Your task to perform on an android device: open app "Gboard" Image 0: 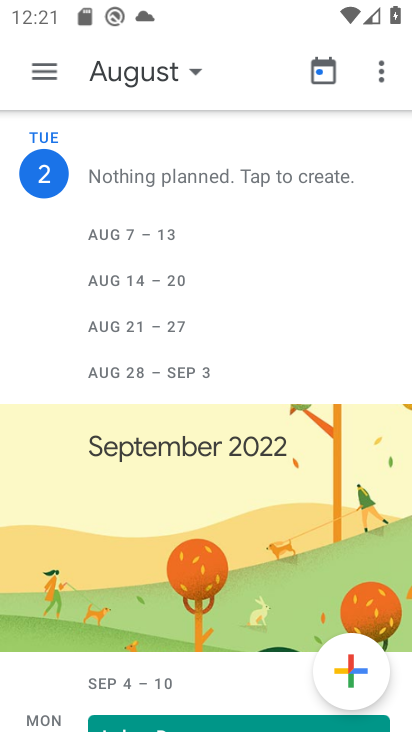
Step 0: press home button
Your task to perform on an android device: open app "Gboard" Image 1: 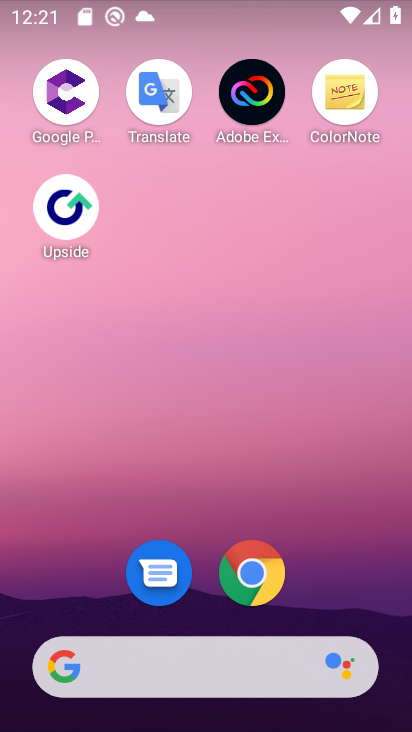
Step 1: drag from (234, 656) to (261, 67)
Your task to perform on an android device: open app "Gboard" Image 2: 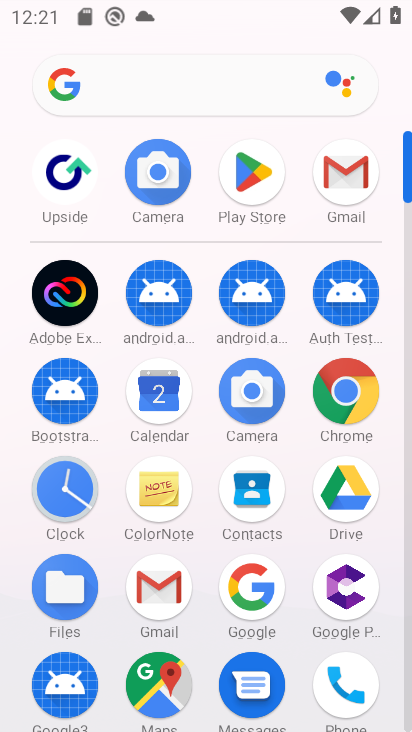
Step 2: click (242, 177)
Your task to perform on an android device: open app "Gboard" Image 3: 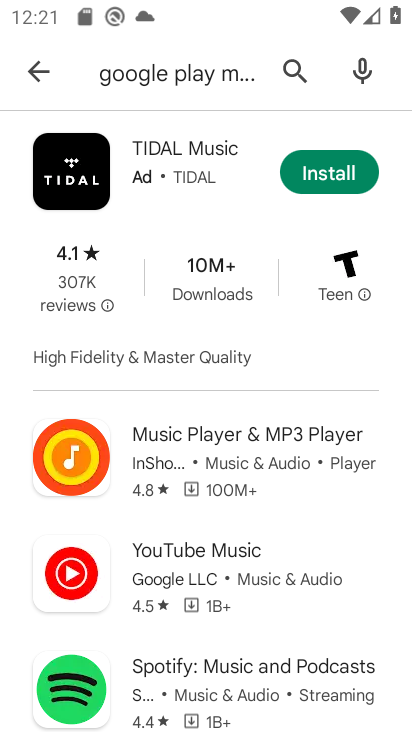
Step 3: click (279, 71)
Your task to perform on an android device: open app "Gboard" Image 4: 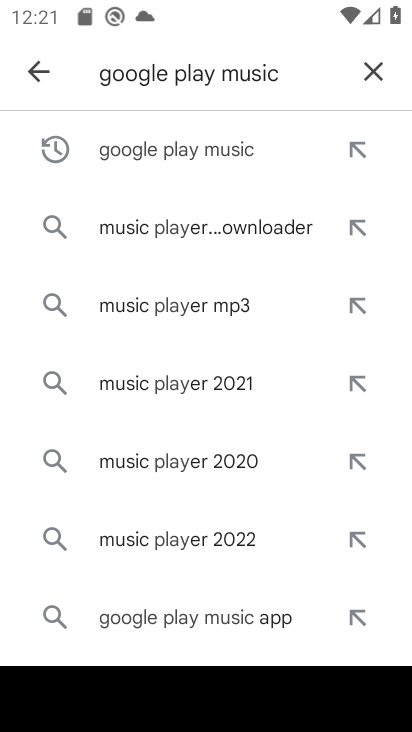
Step 4: click (375, 66)
Your task to perform on an android device: open app "Gboard" Image 5: 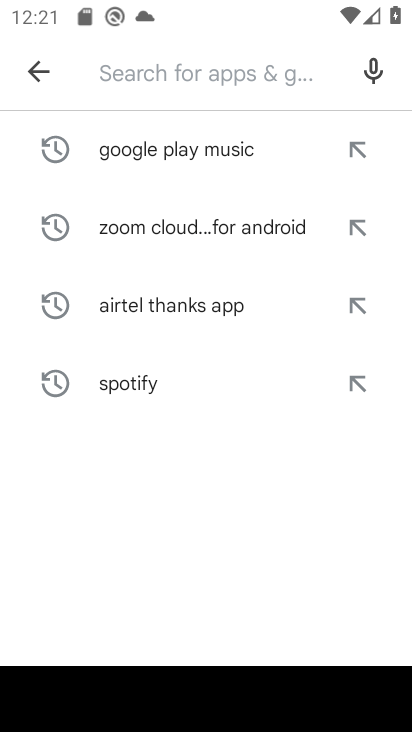
Step 5: type "gboard"
Your task to perform on an android device: open app "Gboard" Image 6: 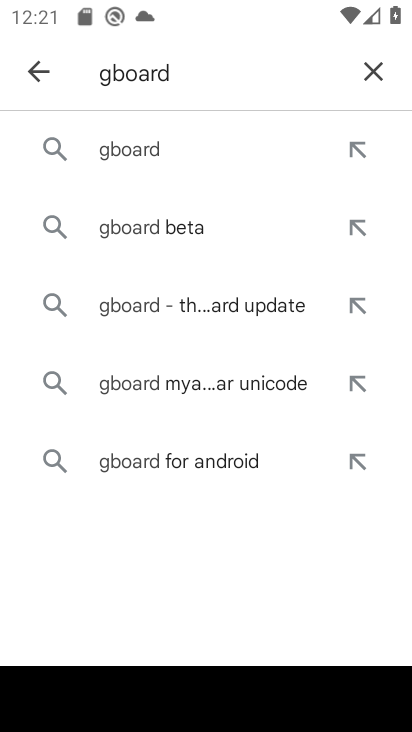
Step 6: click (134, 130)
Your task to perform on an android device: open app "Gboard" Image 7: 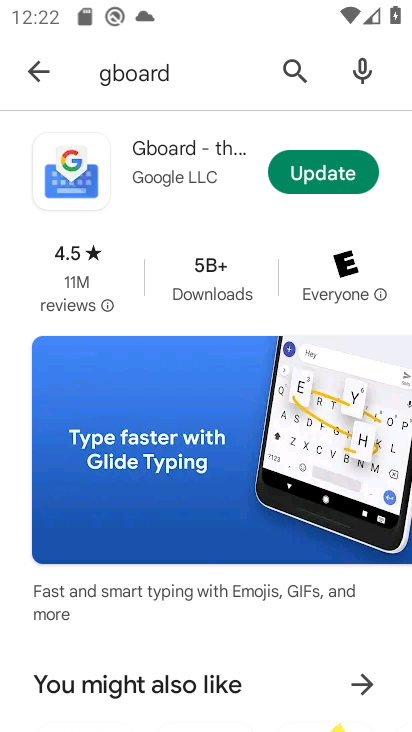
Step 7: task complete